Your task to perform on an android device: Open the stopwatch Image 0: 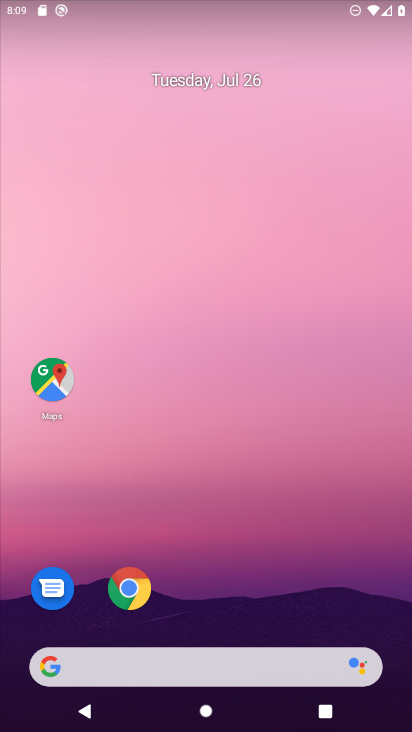
Step 0: drag from (211, 647) to (230, 215)
Your task to perform on an android device: Open the stopwatch Image 1: 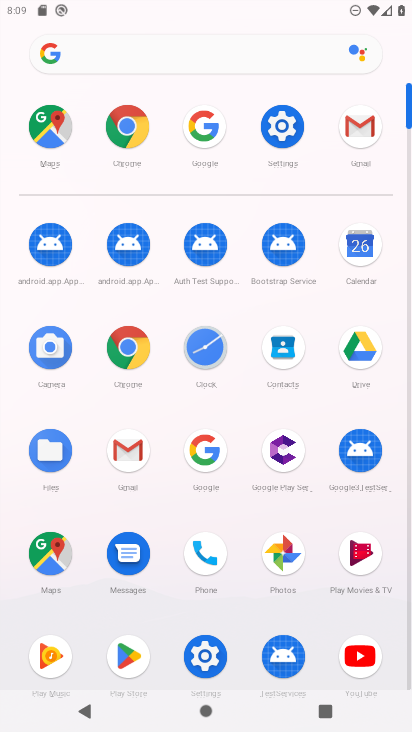
Step 1: click (184, 358)
Your task to perform on an android device: Open the stopwatch Image 2: 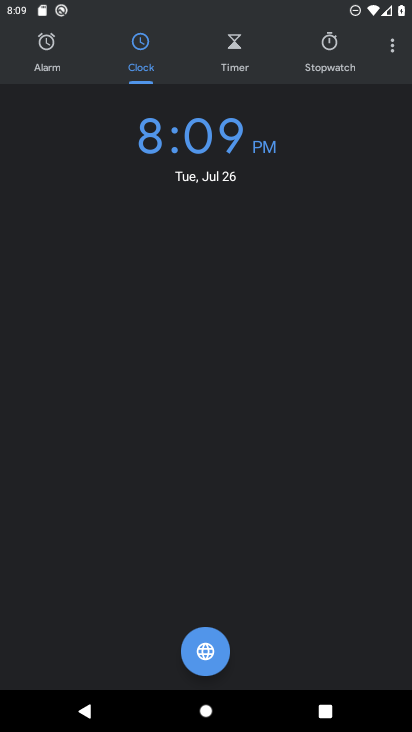
Step 2: click (325, 59)
Your task to perform on an android device: Open the stopwatch Image 3: 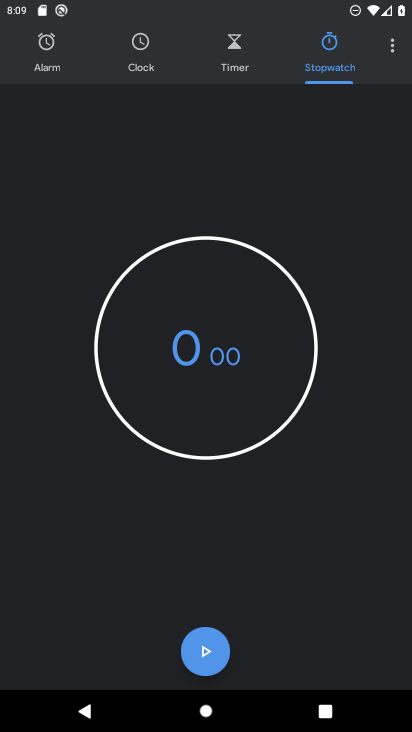
Step 3: task complete